Your task to perform on an android device: check battery use Image 0: 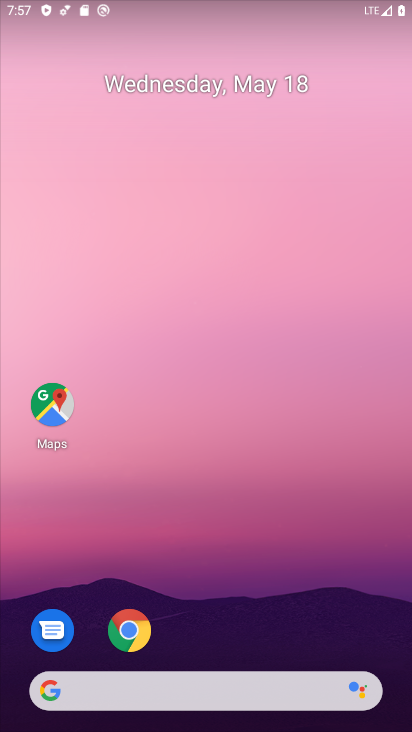
Step 0: press home button
Your task to perform on an android device: check battery use Image 1: 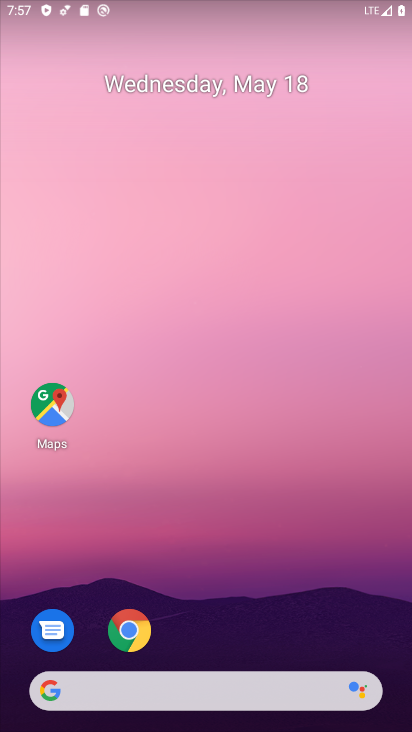
Step 1: drag from (182, 692) to (270, 184)
Your task to perform on an android device: check battery use Image 2: 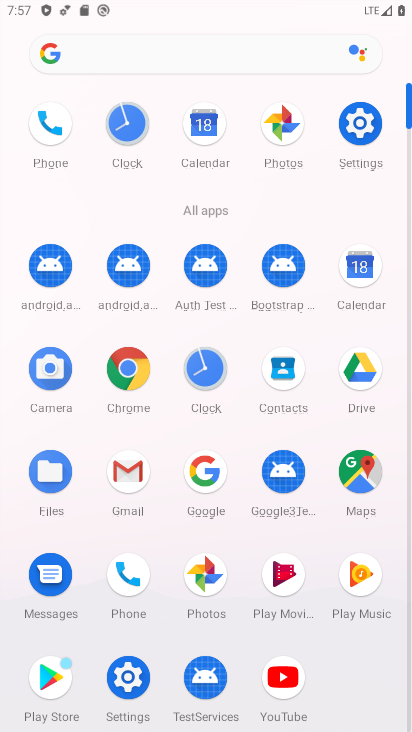
Step 2: click (356, 129)
Your task to perform on an android device: check battery use Image 3: 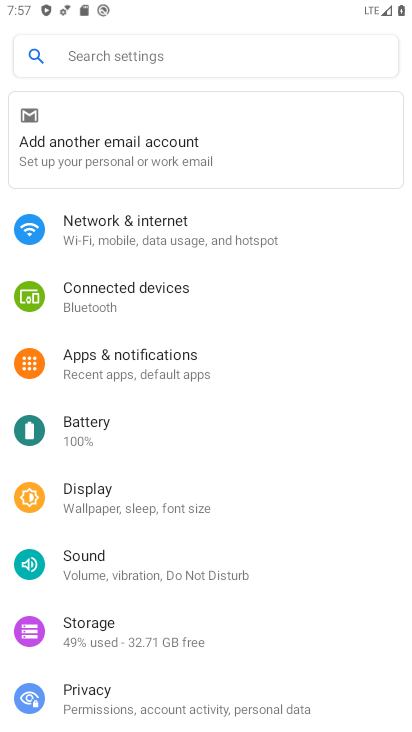
Step 3: click (98, 432)
Your task to perform on an android device: check battery use Image 4: 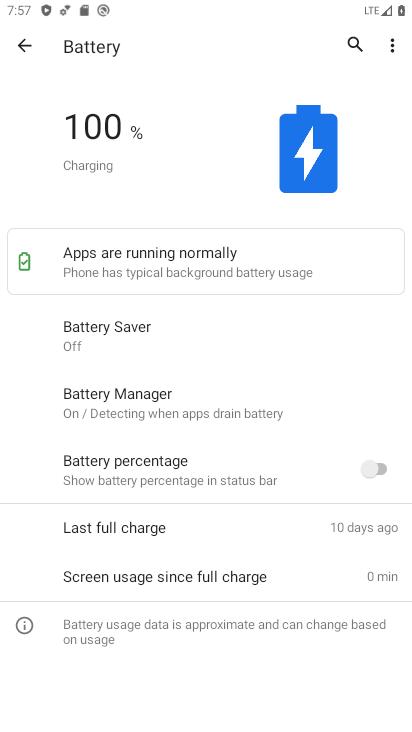
Step 4: click (390, 52)
Your task to perform on an android device: check battery use Image 5: 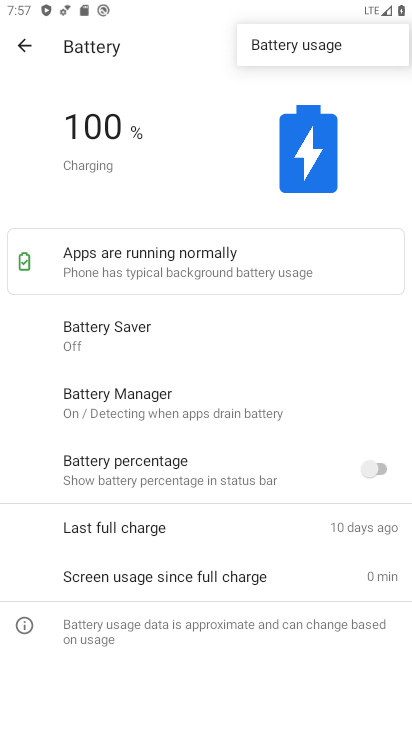
Step 5: click (293, 50)
Your task to perform on an android device: check battery use Image 6: 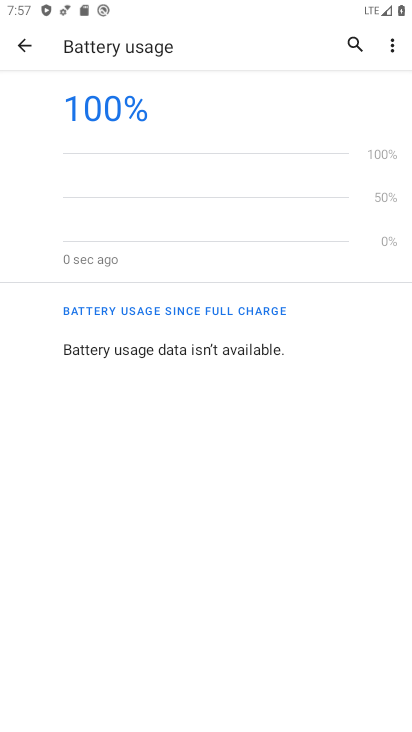
Step 6: task complete